Your task to perform on an android device: Toggle the flashlight Image 0: 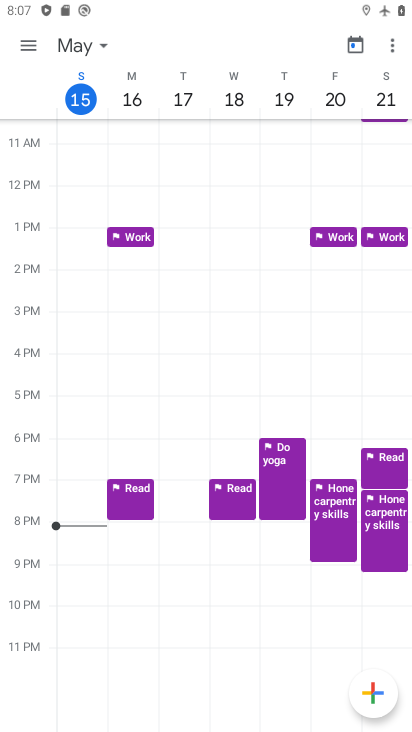
Step 0: press home button
Your task to perform on an android device: Toggle the flashlight Image 1: 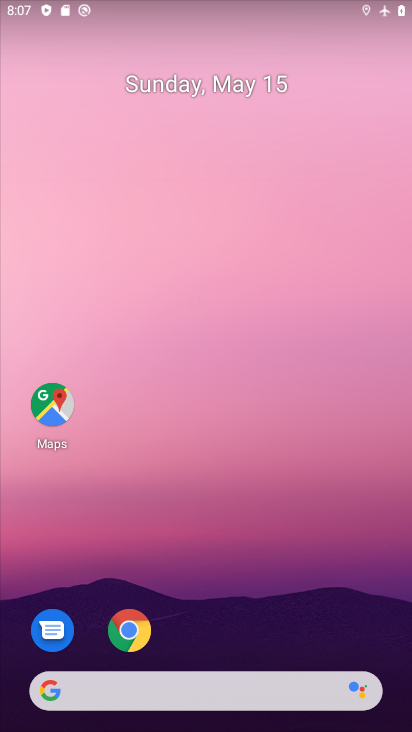
Step 1: drag from (249, 629) to (299, 20)
Your task to perform on an android device: Toggle the flashlight Image 2: 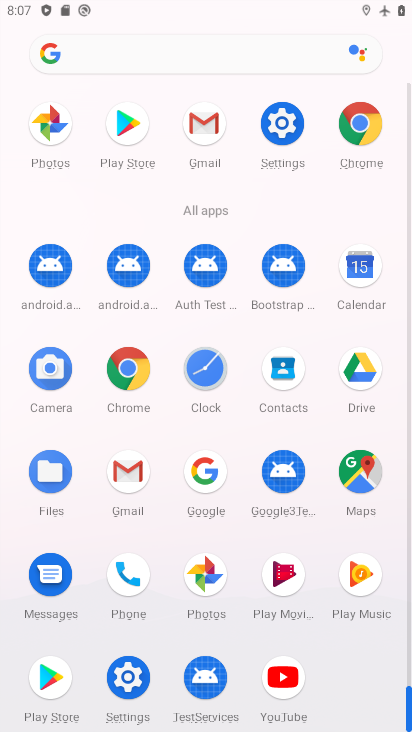
Step 2: click (289, 137)
Your task to perform on an android device: Toggle the flashlight Image 3: 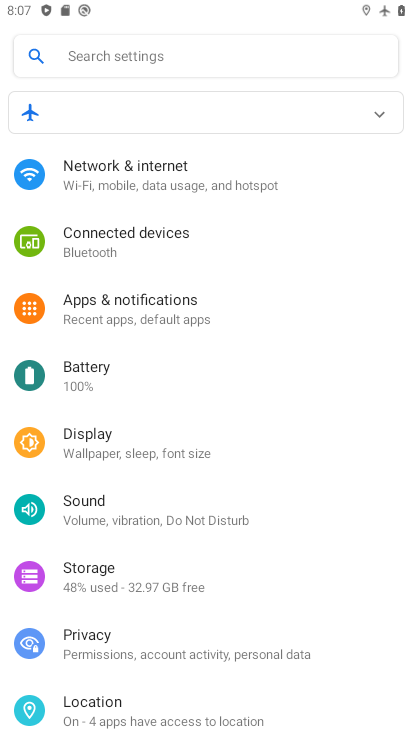
Step 3: click (207, 54)
Your task to perform on an android device: Toggle the flashlight Image 4: 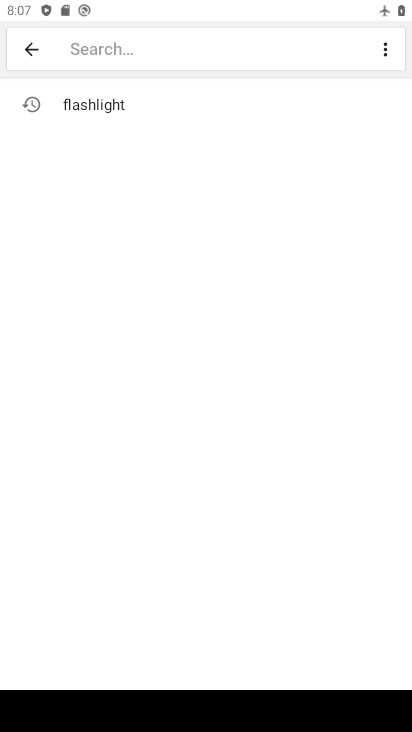
Step 4: type "flashlight"
Your task to perform on an android device: Toggle the flashlight Image 5: 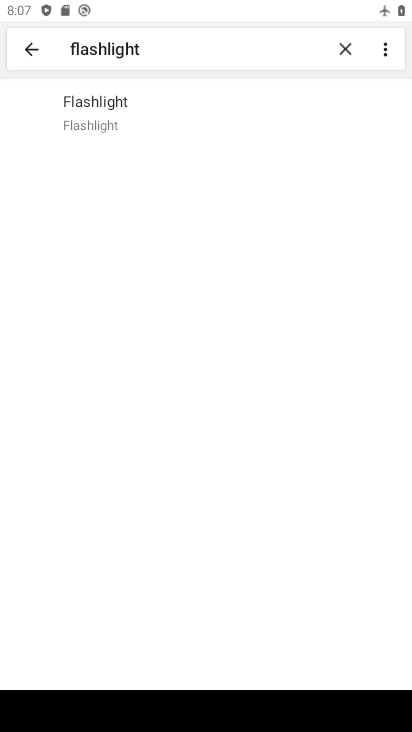
Step 5: click (132, 118)
Your task to perform on an android device: Toggle the flashlight Image 6: 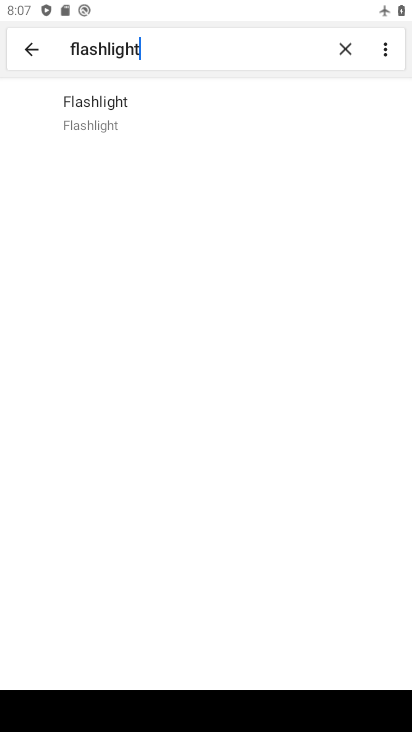
Step 6: task complete